Your task to perform on an android device: Open ESPN.com Image 0: 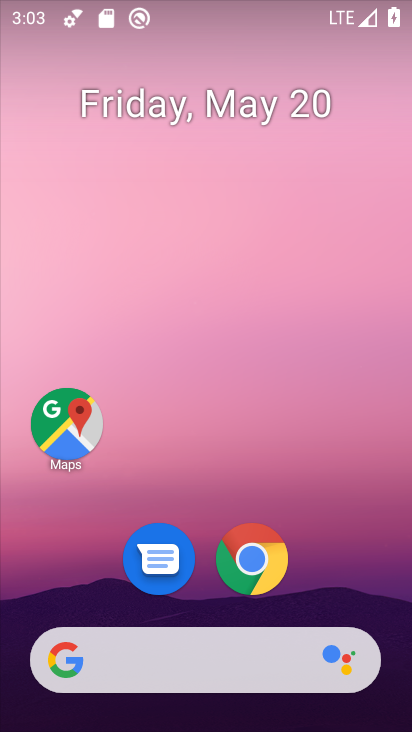
Step 0: click (275, 659)
Your task to perform on an android device: Open ESPN.com Image 1: 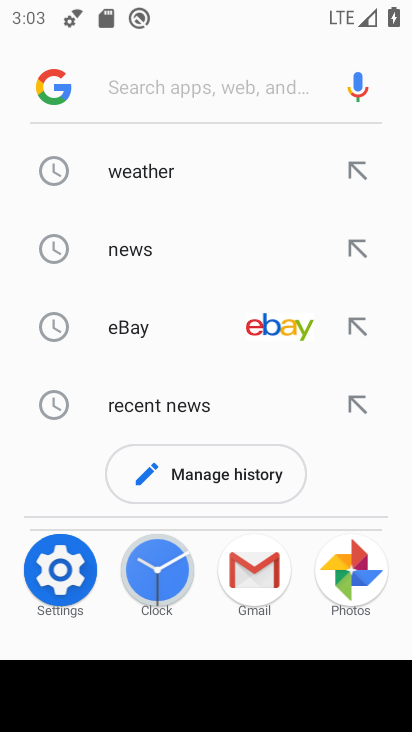
Step 1: type "espn.com"
Your task to perform on an android device: Open ESPN.com Image 2: 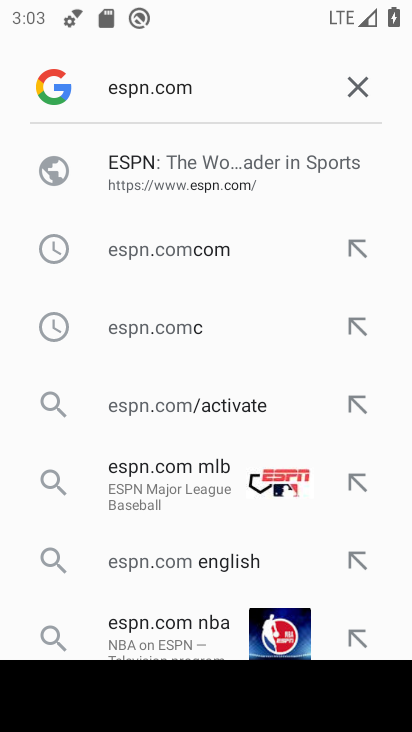
Step 2: click (131, 170)
Your task to perform on an android device: Open ESPN.com Image 3: 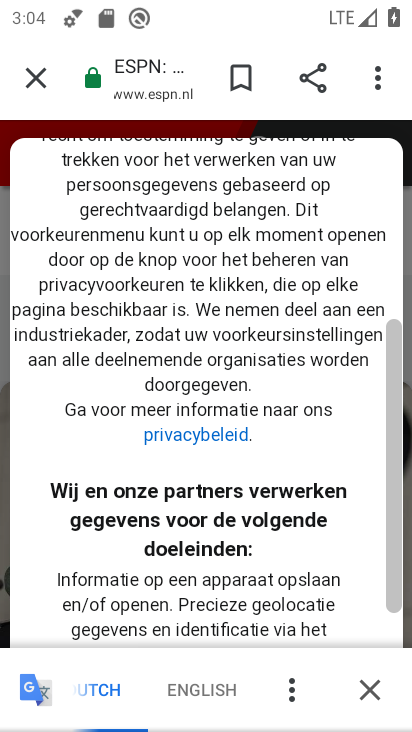
Step 3: task complete